Your task to perform on an android device: choose inbox layout in the gmail app Image 0: 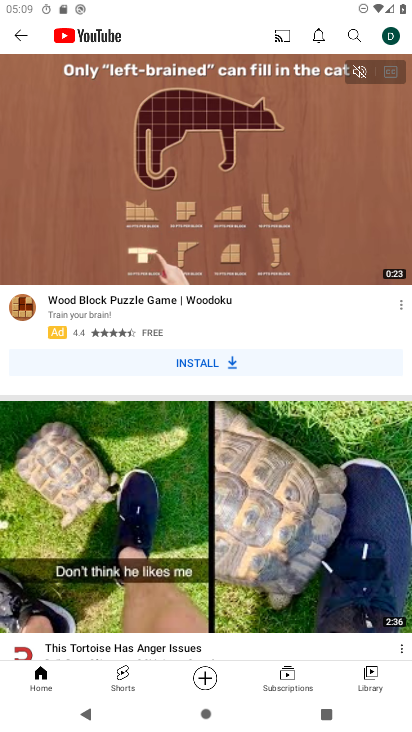
Step 0: press home button
Your task to perform on an android device: choose inbox layout in the gmail app Image 1: 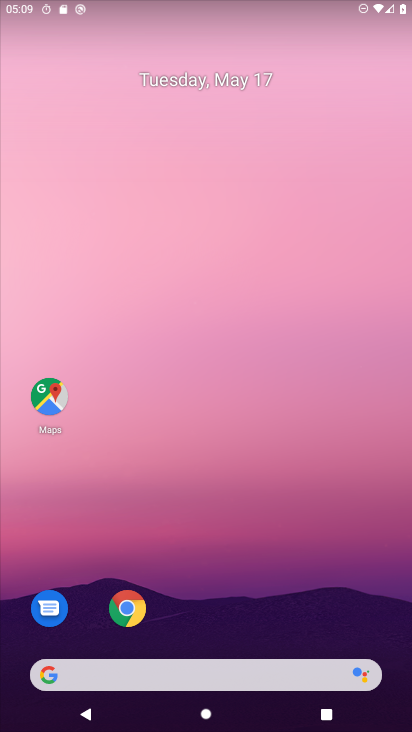
Step 1: drag from (171, 646) to (170, 311)
Your task to perform on an android device: choose inbox layout in the gmail app Image 2: 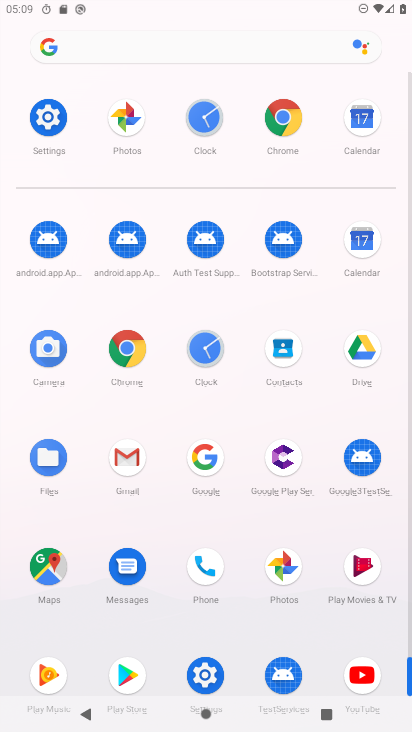
Step 2: click (136, 460)
Your task to perform on an android device: choose inbox layout in the gmail app Image 3: 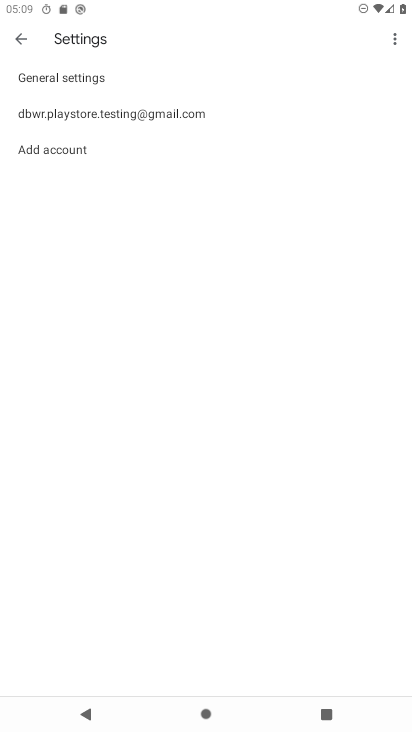
Step 3: click (56, 120)
Your task to perform on an android device: choose inbox layout in the gmail app Image 4: 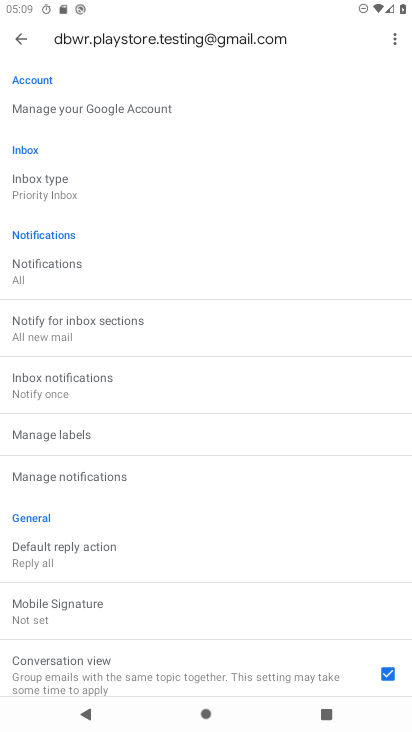
Step 4: click (40, 180)
Your task to perform on an android device: choose inbox layout in the gmail app Image 5: 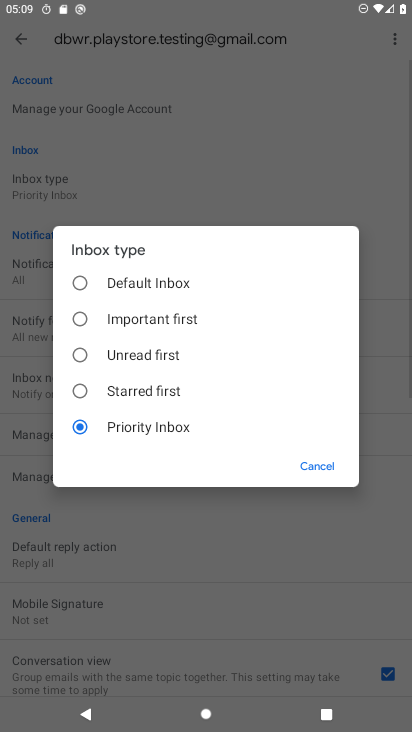
Step 5: click (84, 323)
Your task to perform on an android device: choose inbox layout in the gmail app Image 6: 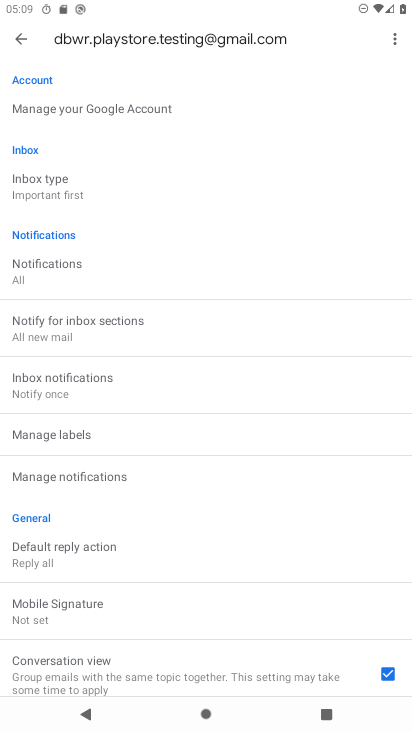
Step 6: task complete